Your task to perform on an android device: Open calendar and show me the third week of next month Image 0: 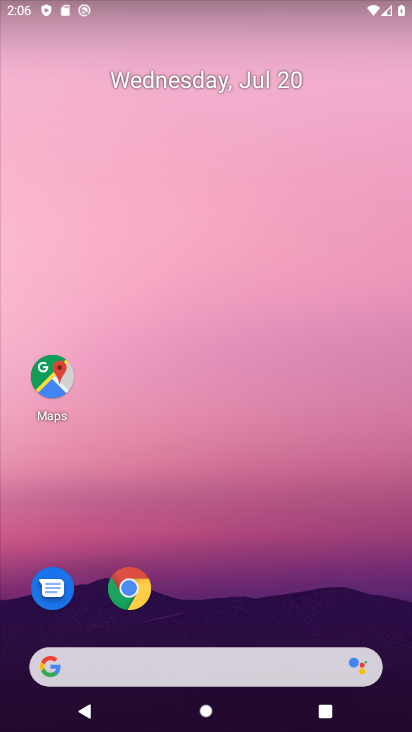
Step 0: drag from (232, 571) to (179, 79)
Your task to perform on an android device: Open calendar and show me the third week of next month Image 1: 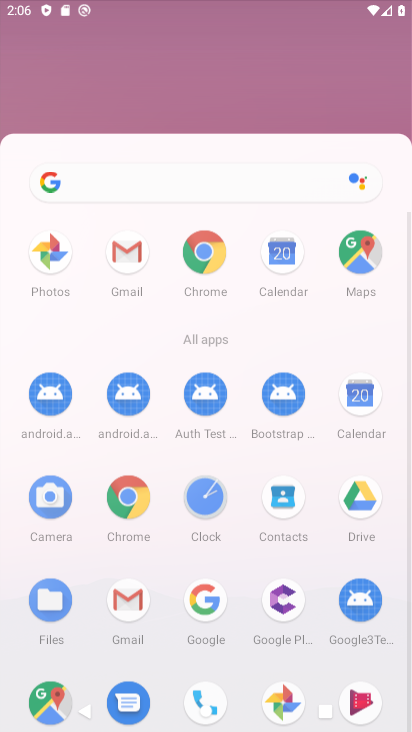
Step 1: drag from (191, 316) to (104, 13)
Your task to perform on an android device: Open calendar and show me the third week of next month Image 2: 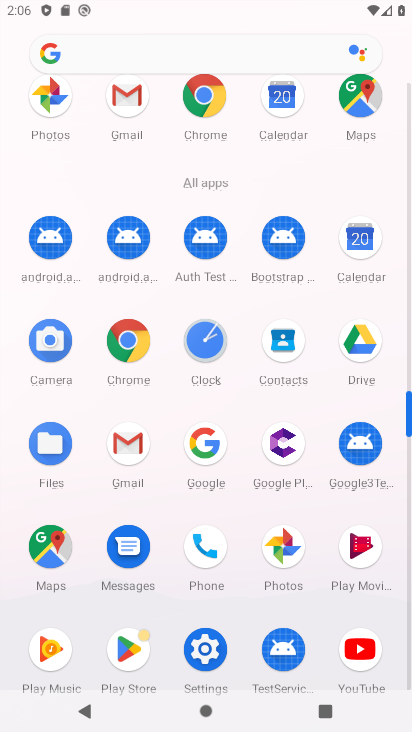
Step 2: drag from (149, 333) to (118, 123)
Your task to perform on an android device: Open calendar and show me the third week of next month Image 3: 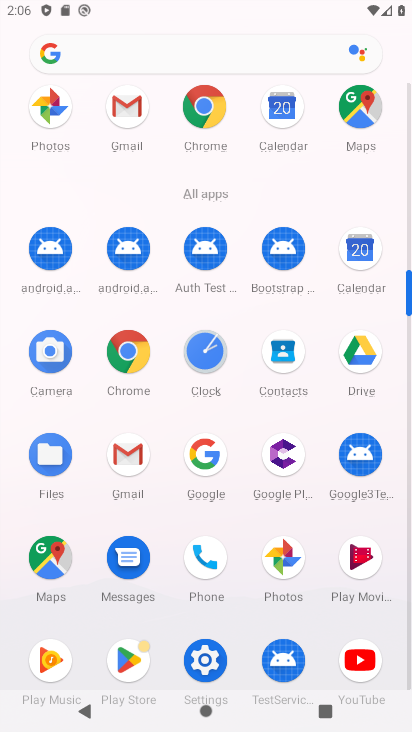
Step 3: click (361, 239)
Your task to perform on an android device: Open calendar and show me the third week of next month Image 4: 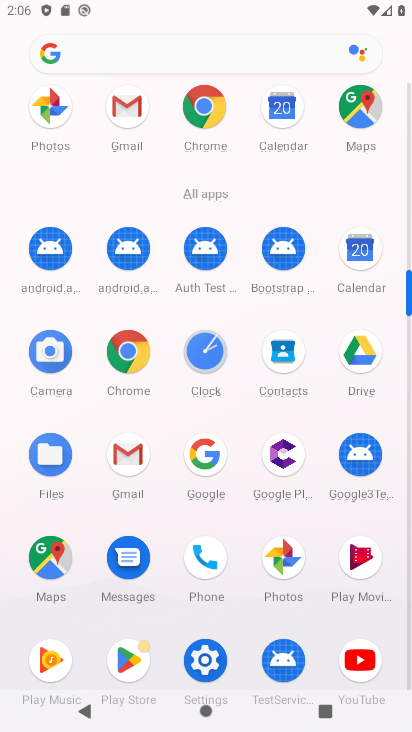
Step 4: click (362, 240)
Your task to perform on an android device: Open calendar and show me the third week of next month Image 5: 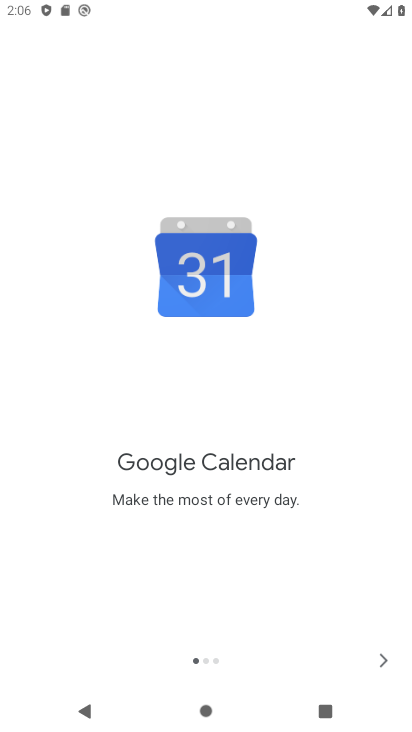
Step 5: click (380, 655)
Your task to perform on an android device: Open calendar and show me the third week of next month Image 6: 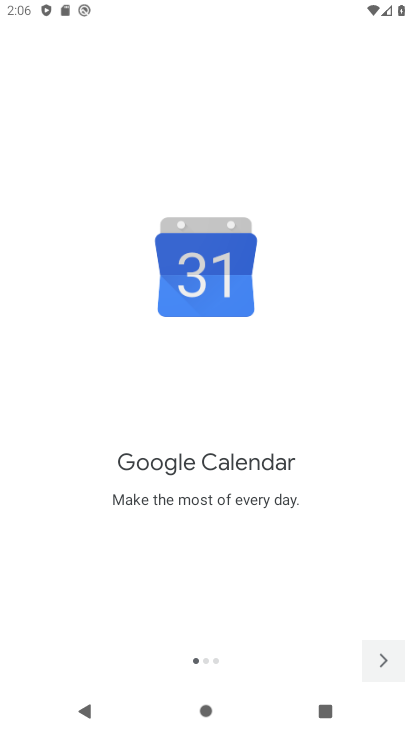
Step 6: click (388, 656)
Your task to perform on an android device: Open calendar and show me the third week of next month Image 7: 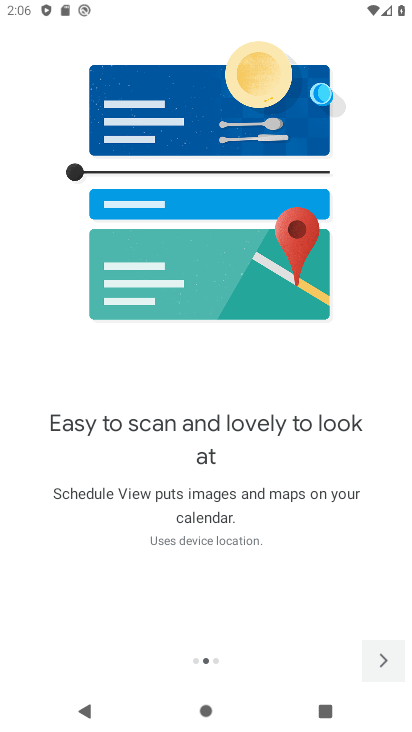
Step 7: click (388, 656)
Your task to perform on an android device: Open calendar and show me the third week of next month Image 8: 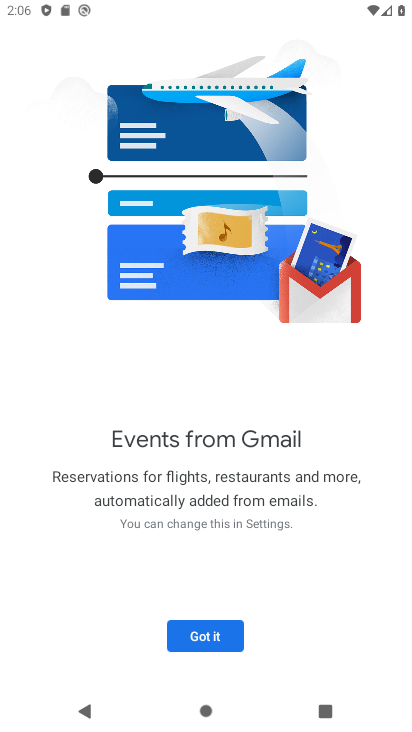
Step 8: click (241, 634)
Your task to perform on an android device: Open calendar and show me the third week of next month Image 9: 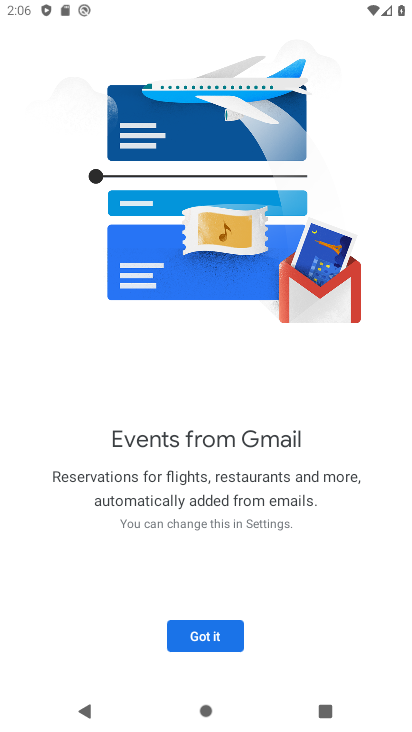
Step 9: click (236, 634)
Your task to perform on an android device: Open calendar and show me the third week of next month Image 10: 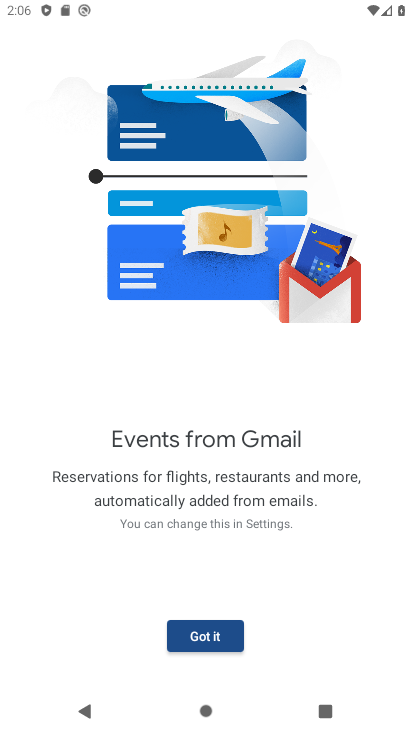
Step 10: click (236, 634)
Your task to perform on an android device: Open calendar and show me the third week of next month Image 11: 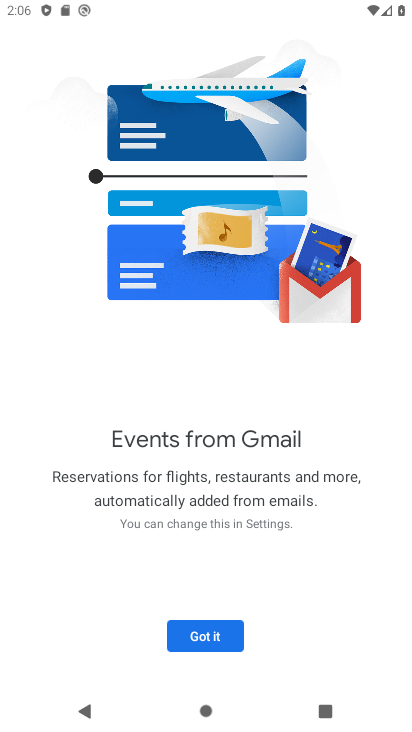
Step 11: click (236, 634)
Your task to perform on an android device: Open calendar and show me the third week of next month Image 12: 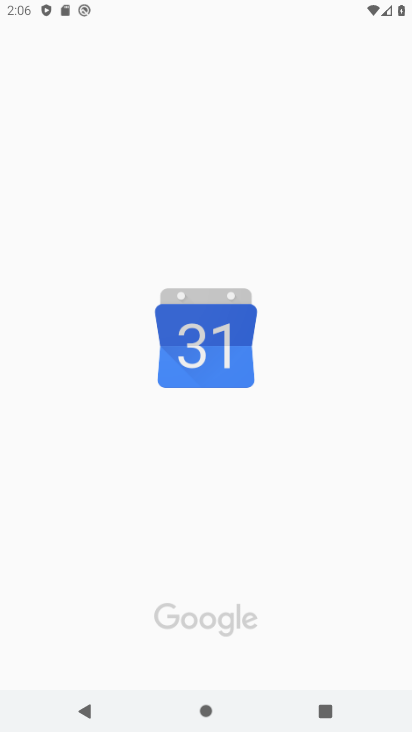
Step 12: click (219, 633)
Your task to perform on an android device: Open calendar and show me the third week of next month Image 13: 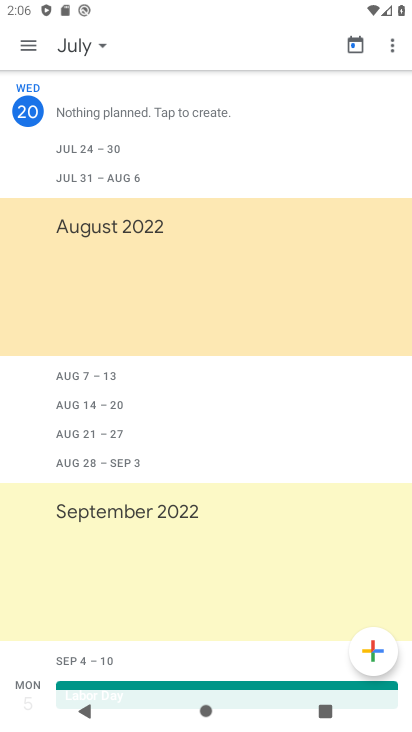
Step 13: click (107, 45)
Your task to perform on an android device: Open calendar and show me the third week of next month Image 14: 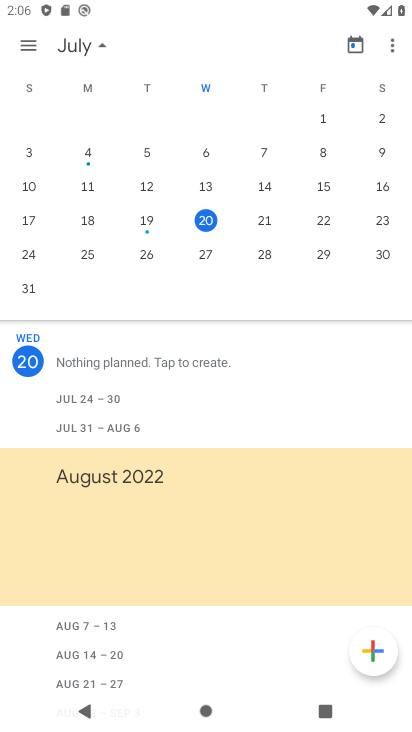
Step 14: drag from (356, 198) to (0, 243)
Your task to perform on an android device: Open calendar and show me the third week of next month Image 15: 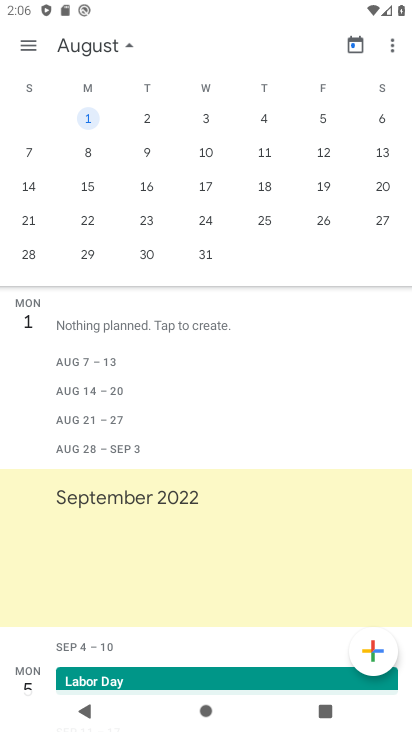
Step 15: click (148, 187)
Your task to perform on an android device: Open calendar and show me the third week of next month Image 16: 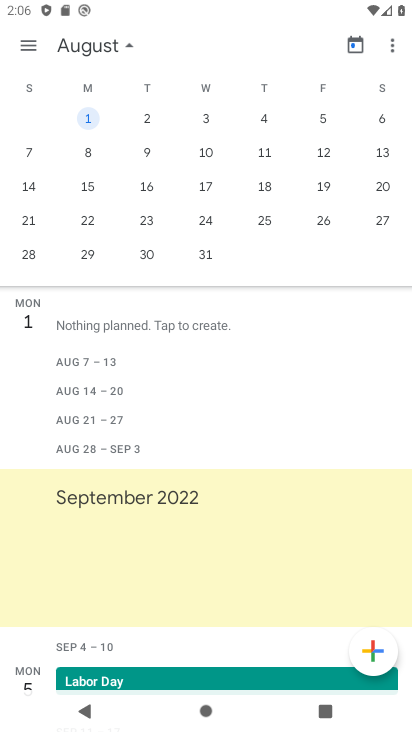
Step 16: click (148, 187)
Your task to perform on an android device: Open calendar and show me the third week of next month Image 17: 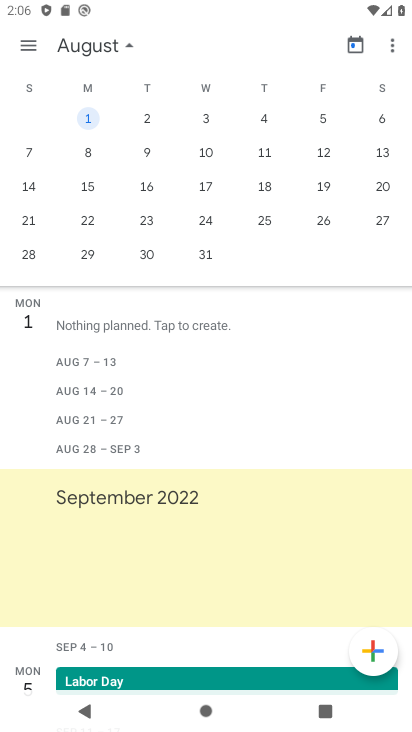
Step 17: click (148, 187)
Your task to perform on an android device: Open calendar and show me the third week of next month Image 18: 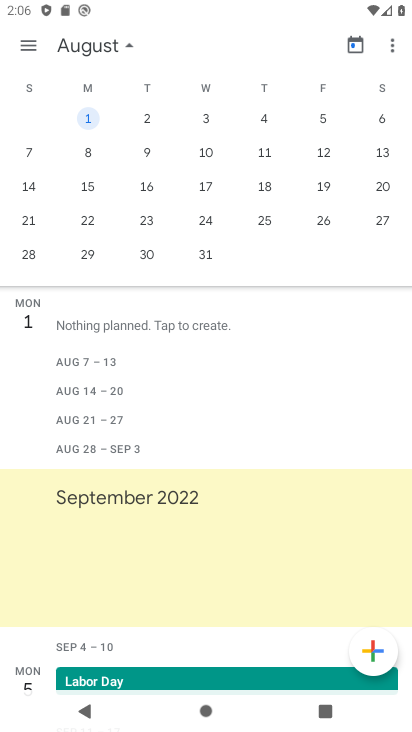
Step 18: click (148, 188)
Your task to perform on an android device: Open calendar and show me the third week of next month Image 19: 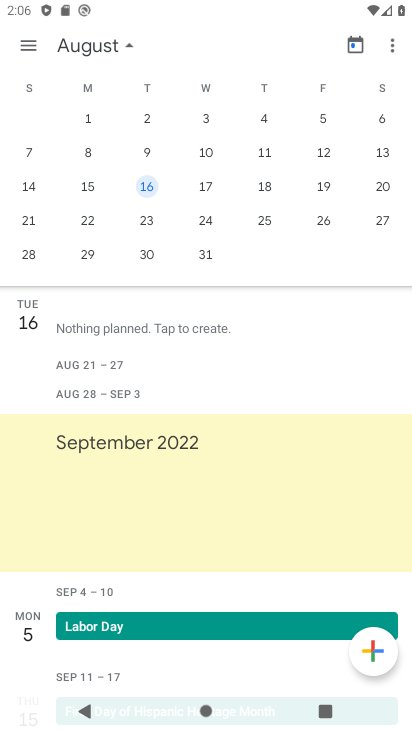
Step 19: click (149, 189)
Your task to perform on an android device: Open calendar and show me the third week of next month Image 20: 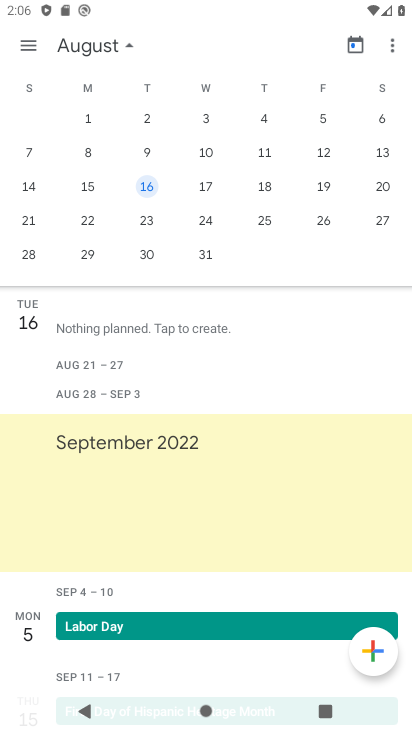
Step 20: click (149, 189)
Your task to perform on an android device: Open calendar and show me the third week of next month Image 21: 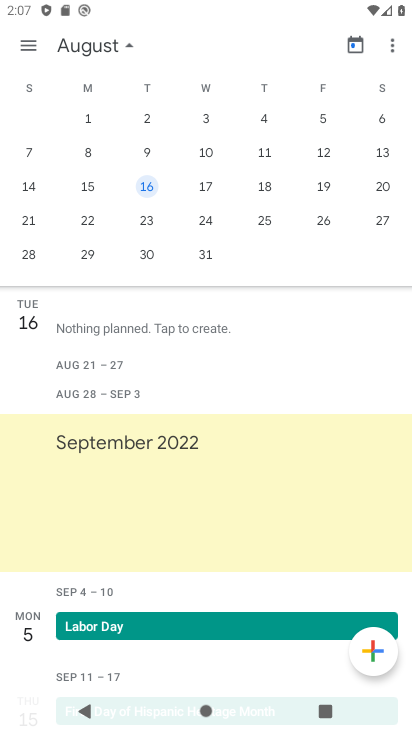
Step 21: task complete